Your task to perform on an android device: turn off notifications in google photos Image 0: 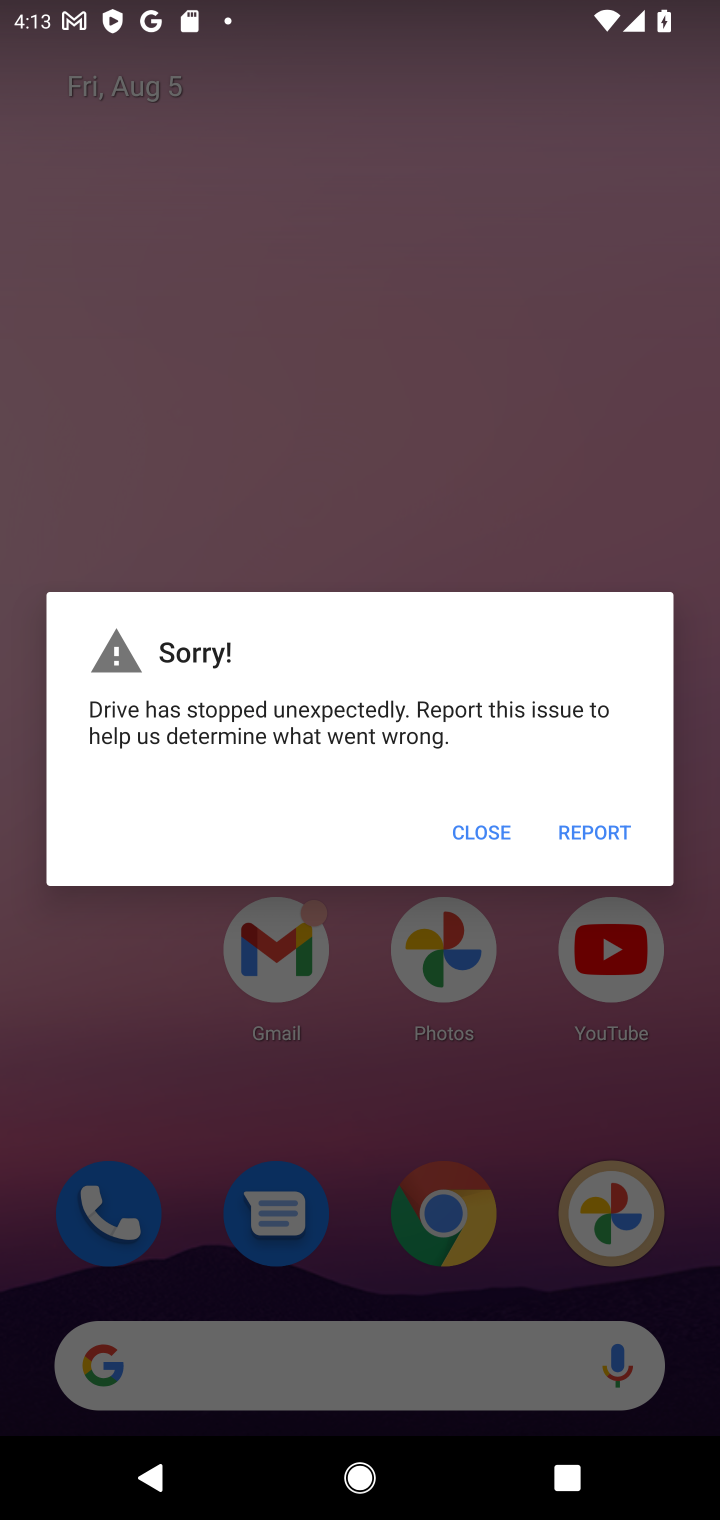
Step 0: click (454, 842)
Your task to perform on an android device: turn off notifications in google photos Image 1: 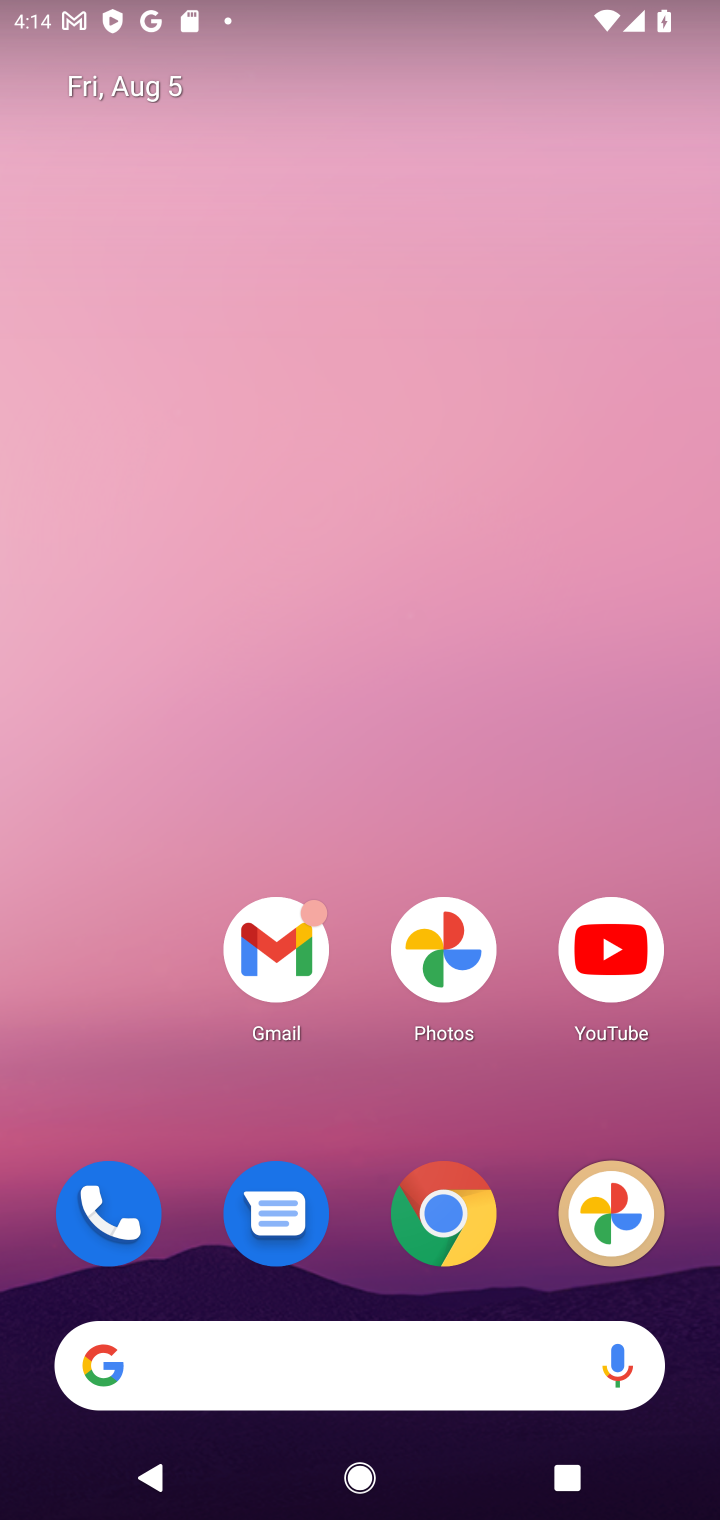
Step 1: click (414, 935)
Your task to perform on an android device: turn off notifications in google photos Image 2: 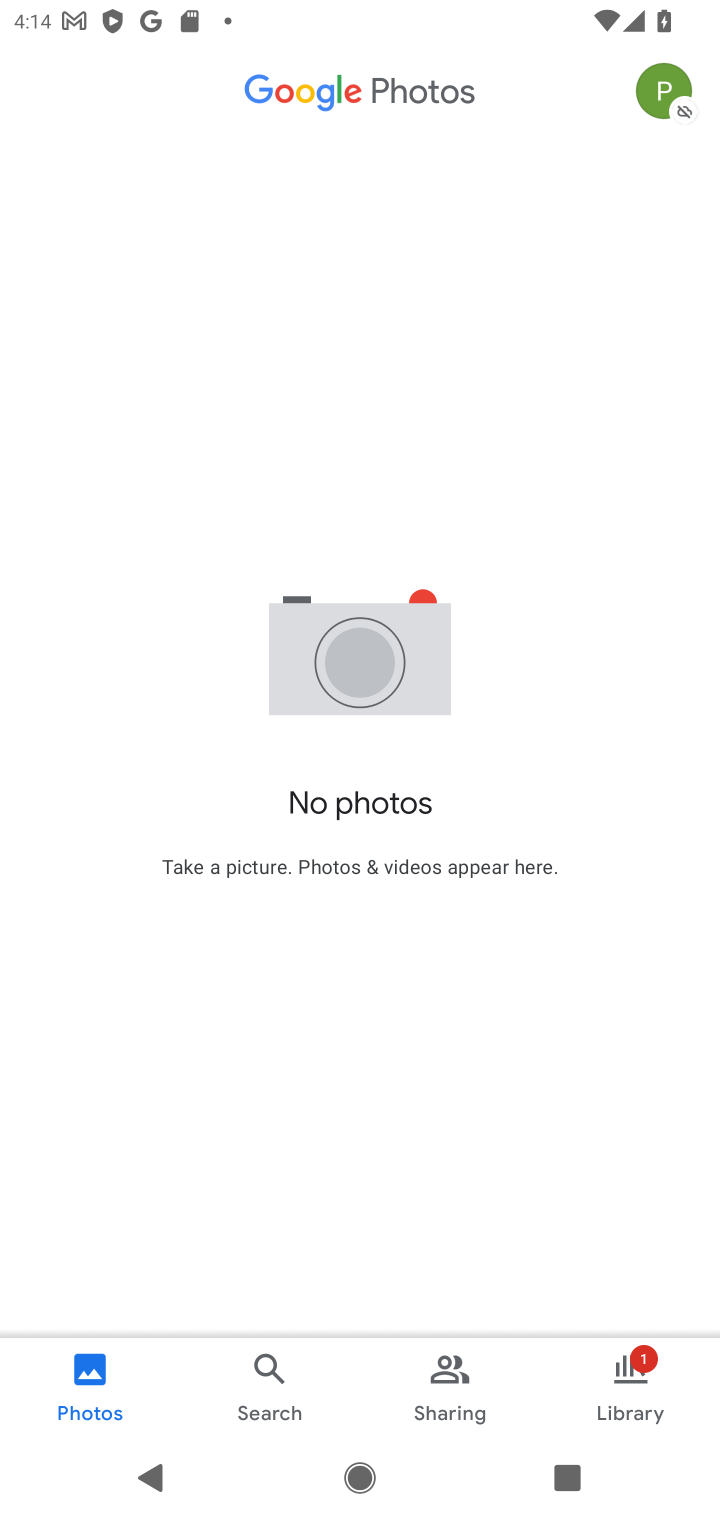
Step 2: click (664, 103)
Your task to perform on an android device: turn off notifications in google photos Image 3: 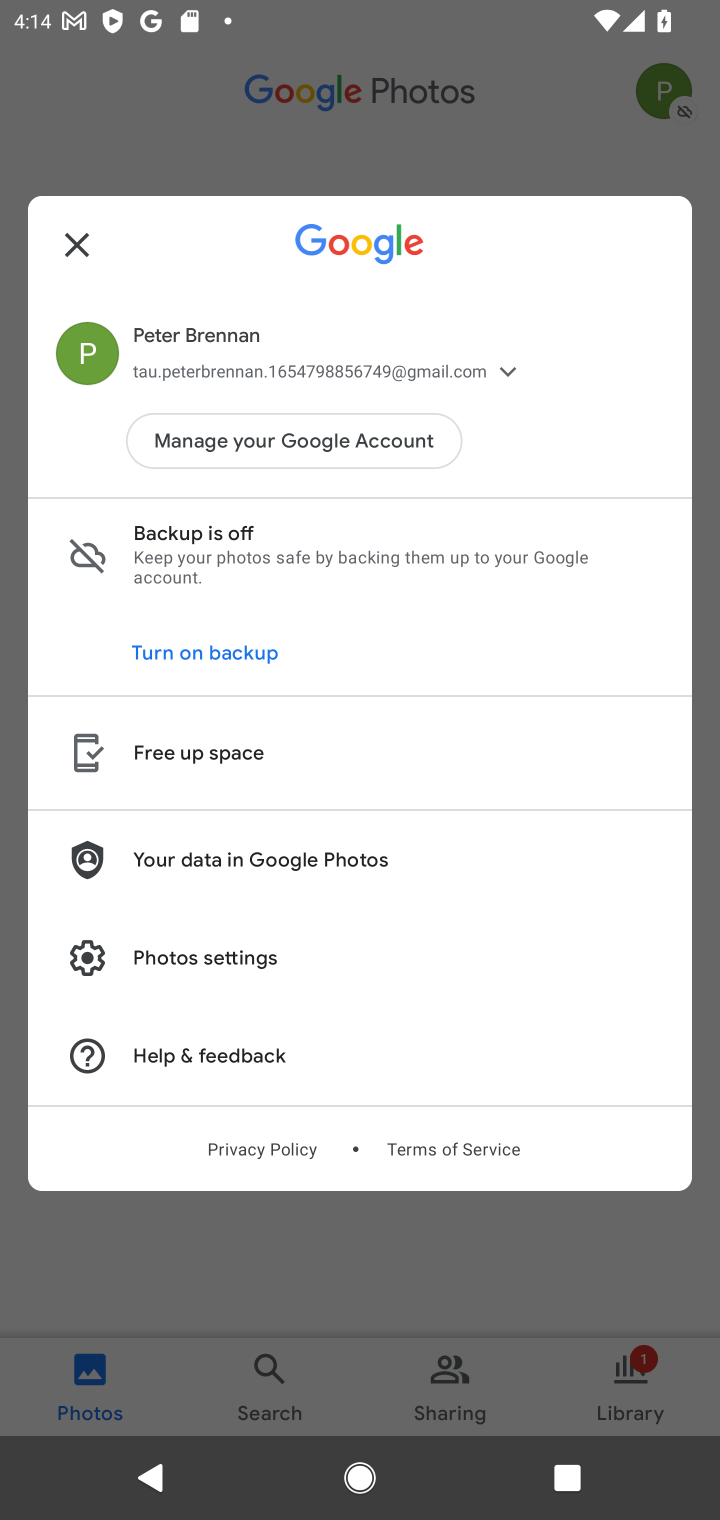
Step 3: click (333, 935)
Your task to perform on an android device: turn off notifications in google photos Image 4: 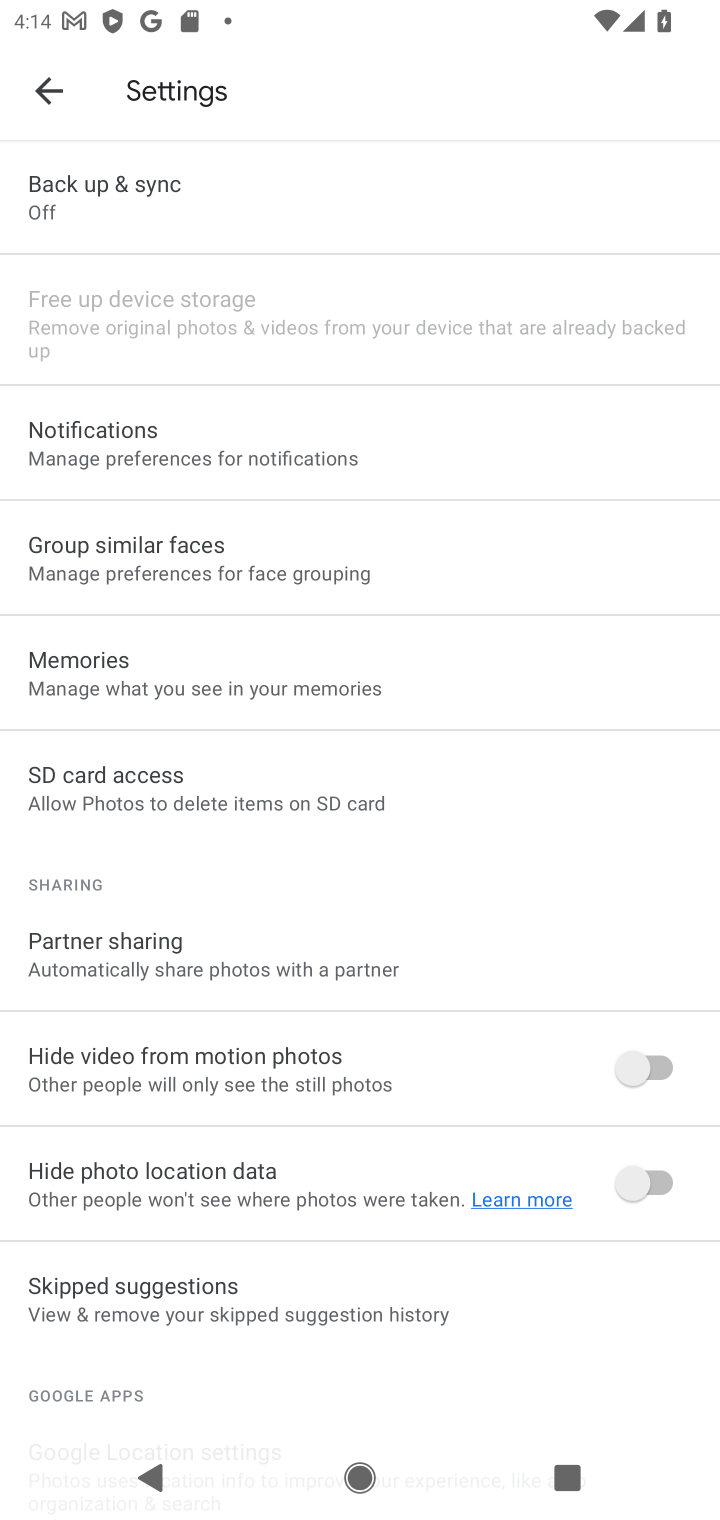
Step 4: task complete